Your task to perform on an android device: Is it going to rain today? Image 0: 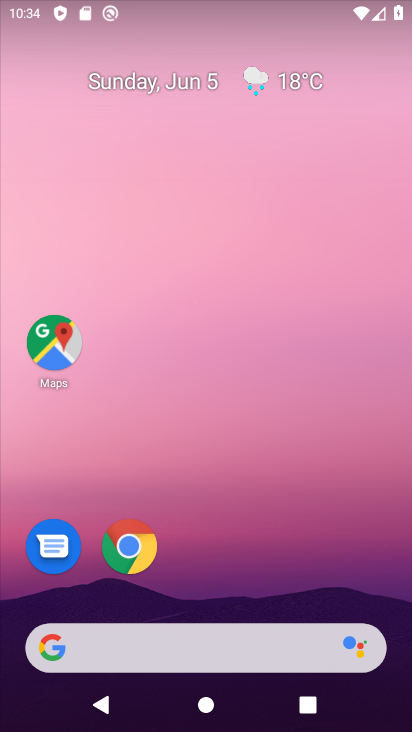
Step 0: click (131, 642)
Your task to perform on an android device: Is it going to rain today? Image 1: 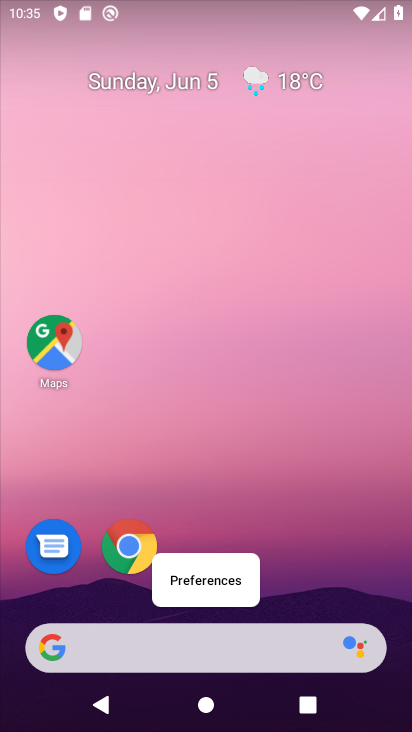
Step 1: click (149, 658)
Your task to perform on an android device: Is it going to rain today? Image 2: 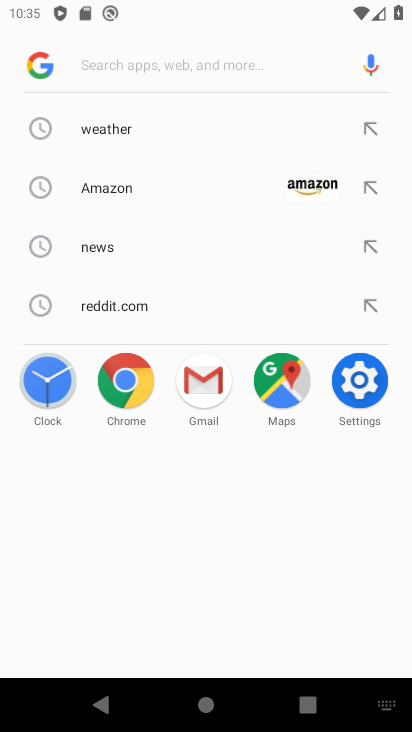
Step 2: click (174, 133)
Your task to perform on an android device: Is it going to rain today? Image 3: 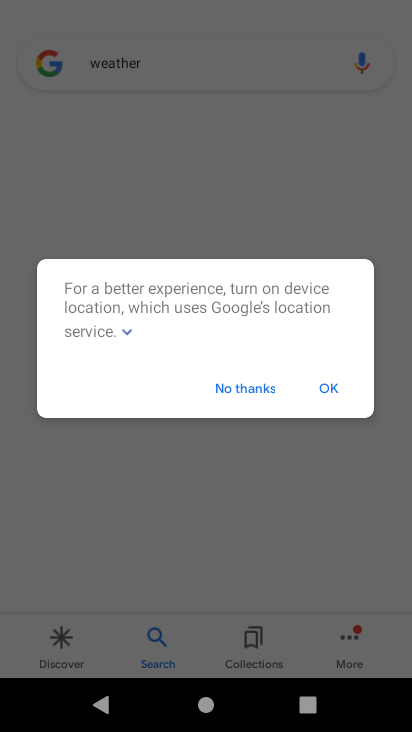
Step 3: click (337, 401)
Your task to perform on an android device: Is it going to rain today? Image 4: 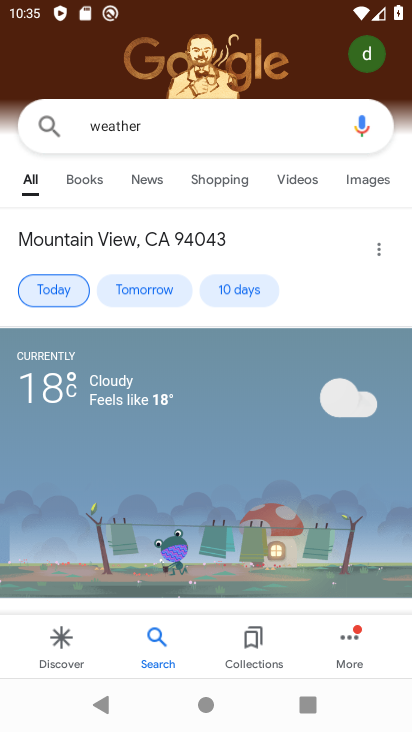
Step 4: task complete